Your task to perform on an android device: Open calendar and show me the fourth week of next month Image 0: 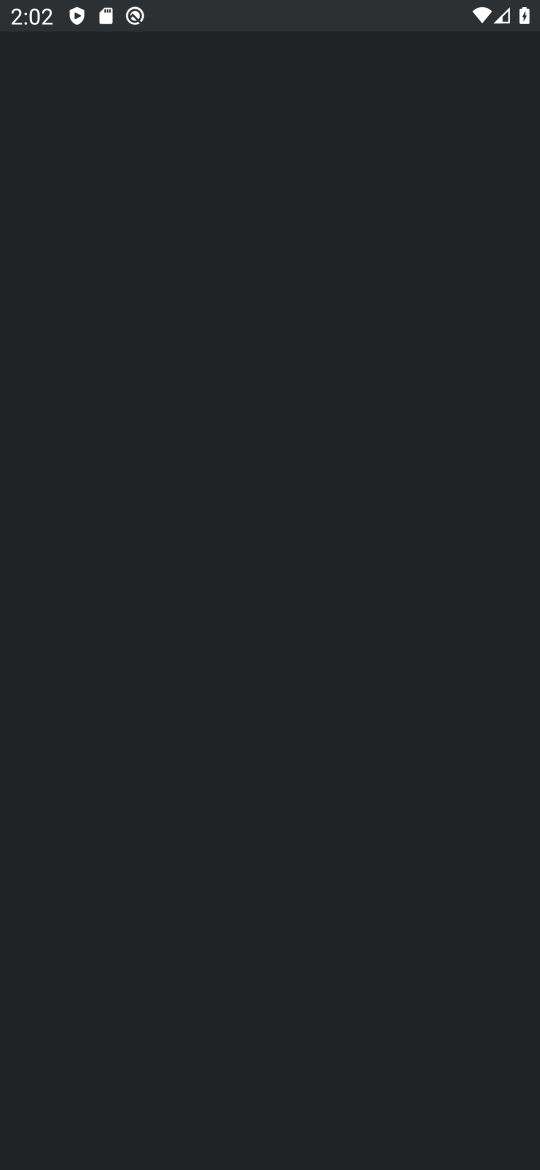
Step 0: drag from (477, 969) to (387, 182)
Your task to perform on an android device: Open calendar and show me the fourth week of next month Image 1: 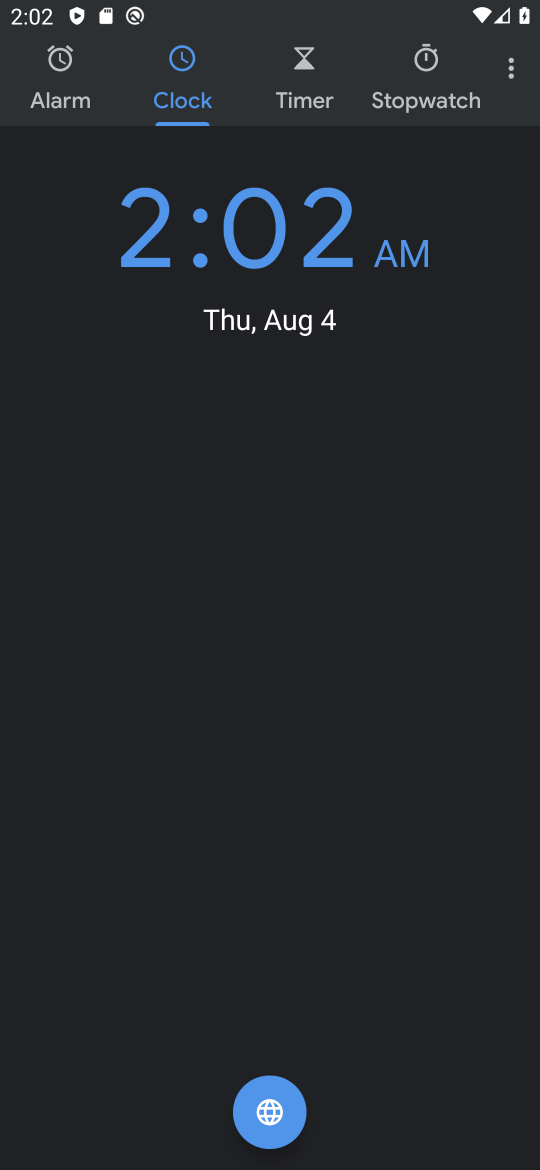
Step 1: press home button
Your task to perform on an android device: Open calendar and show me the fourth week of next month Image 2: 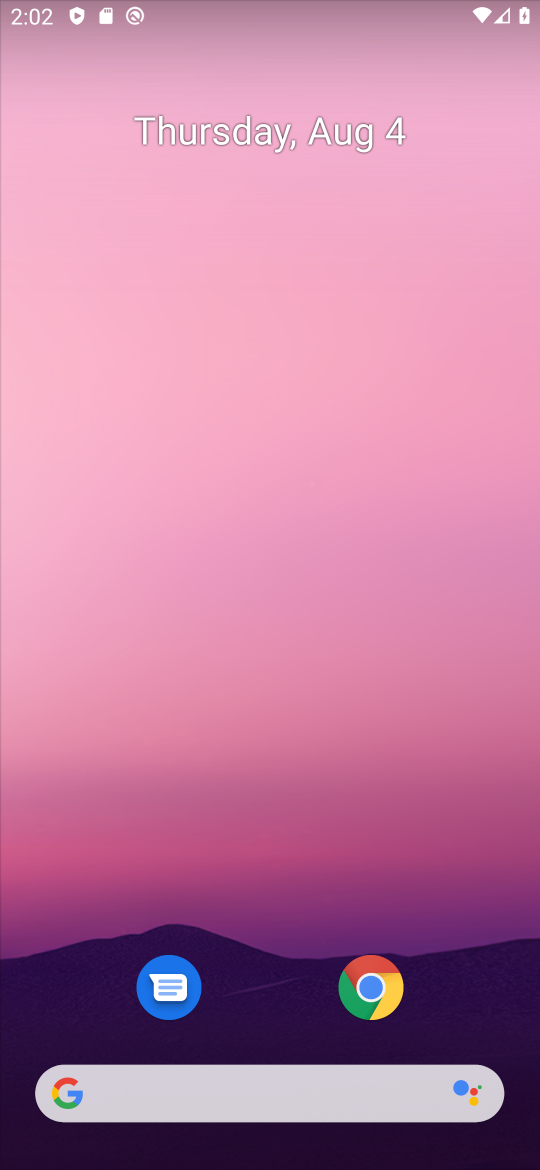
Step 2: drag from (522, 1004) to (242, 137)
Your task to perform on an android device: Open calendar and show me the fourth week of next month Image 3: 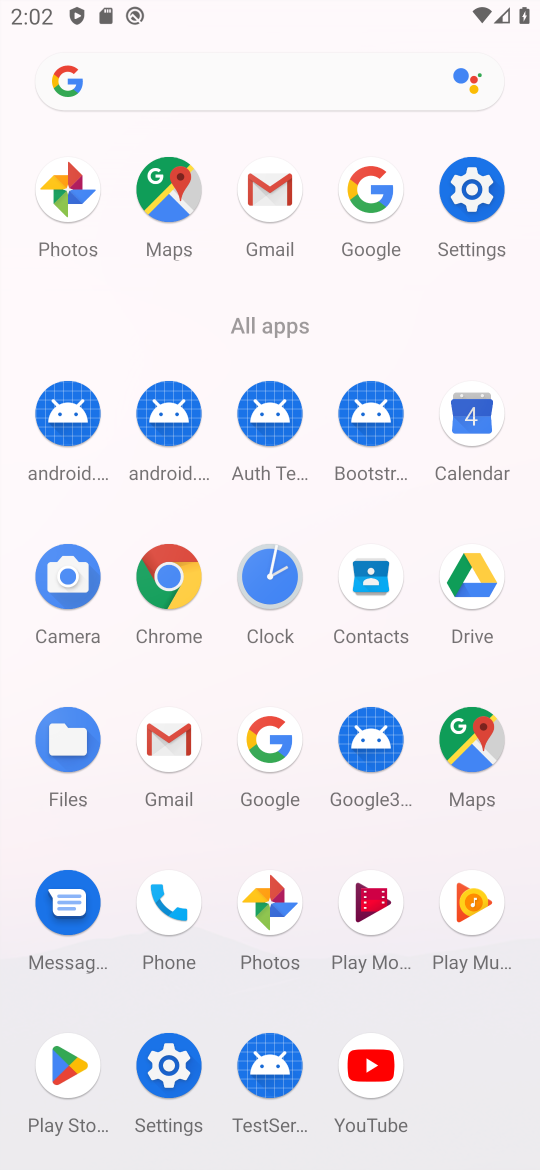
Step 3: click (462, 414)
Your task to perform on an android device: Open calendar and show me the fourth week of next month Image 4: 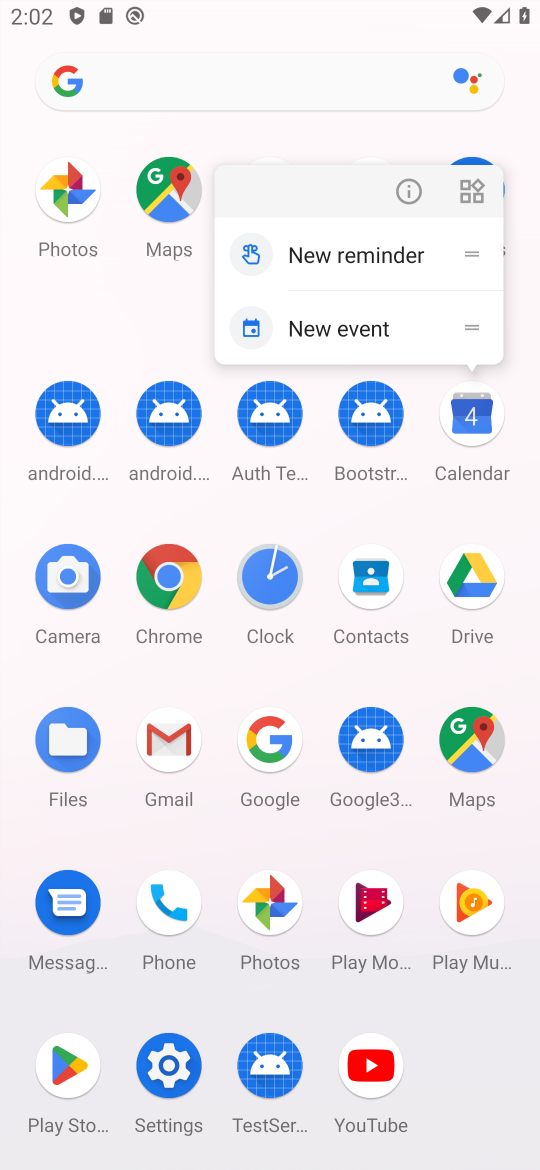
Step 4: click (464, 414)
Your task to perform on an android device: Open calendar and show me the fourth week of next month Image 5: 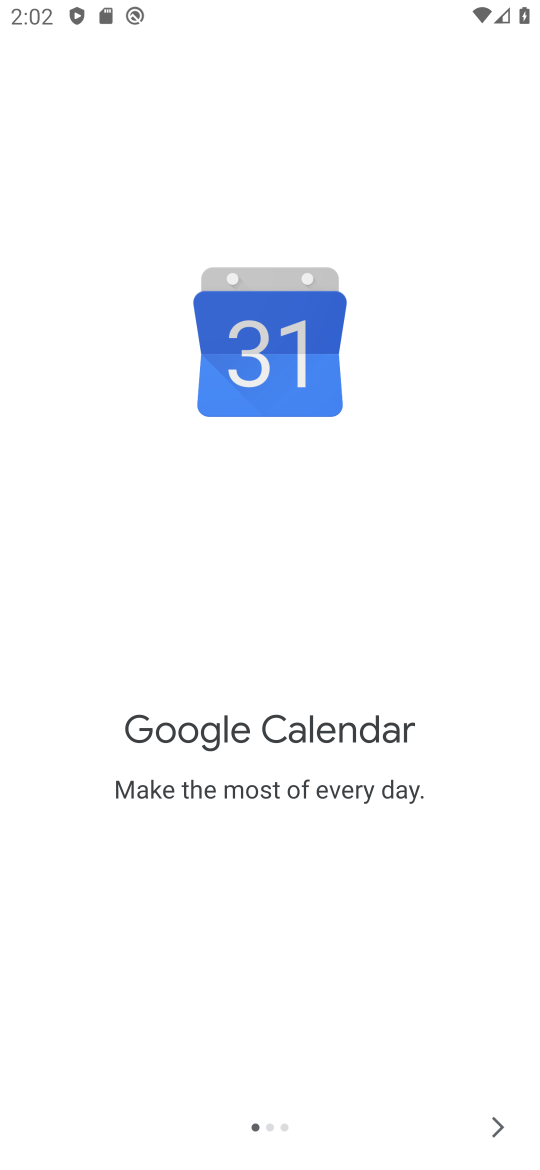
Step 5: click (496, 1132)
Your task to perform on an android device: Open calendar and show me the fourth week of next month Image 6: 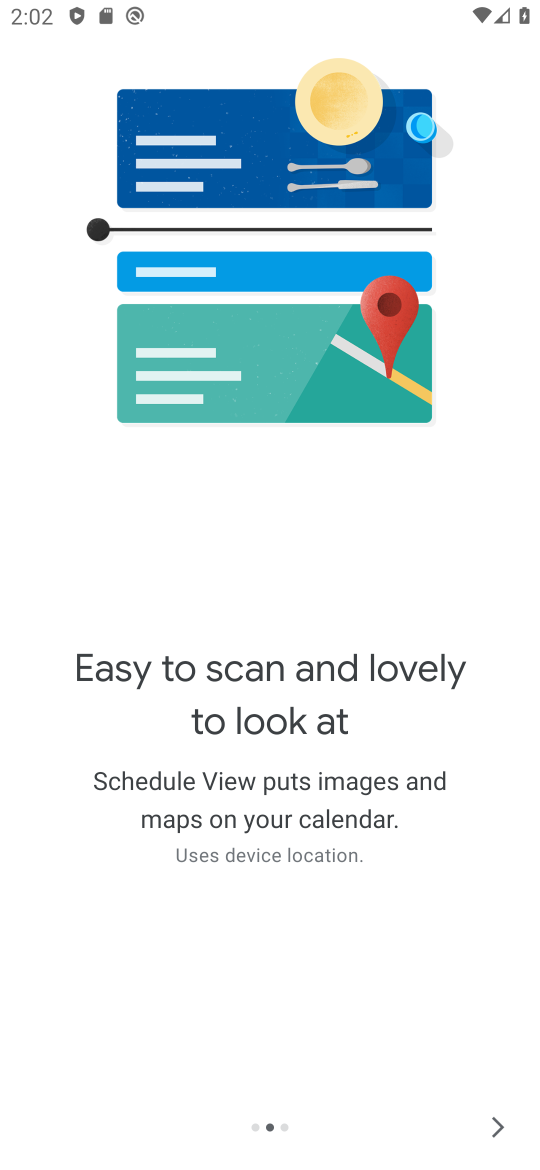
Step 6: click (495, 1130)
Your task to perform on an android device: Open calendar and show me the fourth week of next month Image 7: 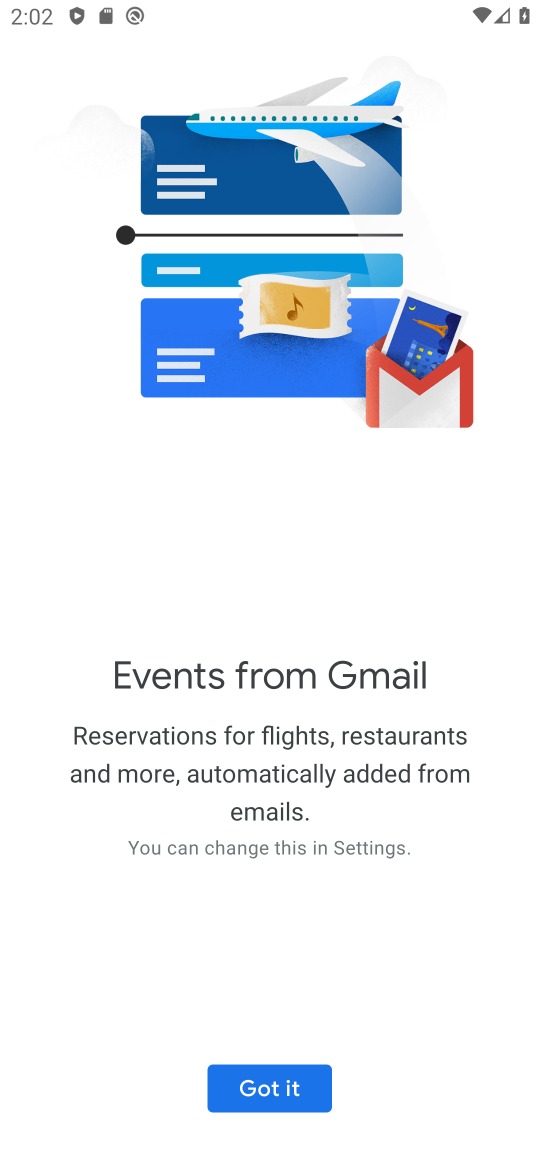
Step 7: click (267, 1084)
Your task to perform on an android device: Open calendar and show me the fourth week of next month Image 8: 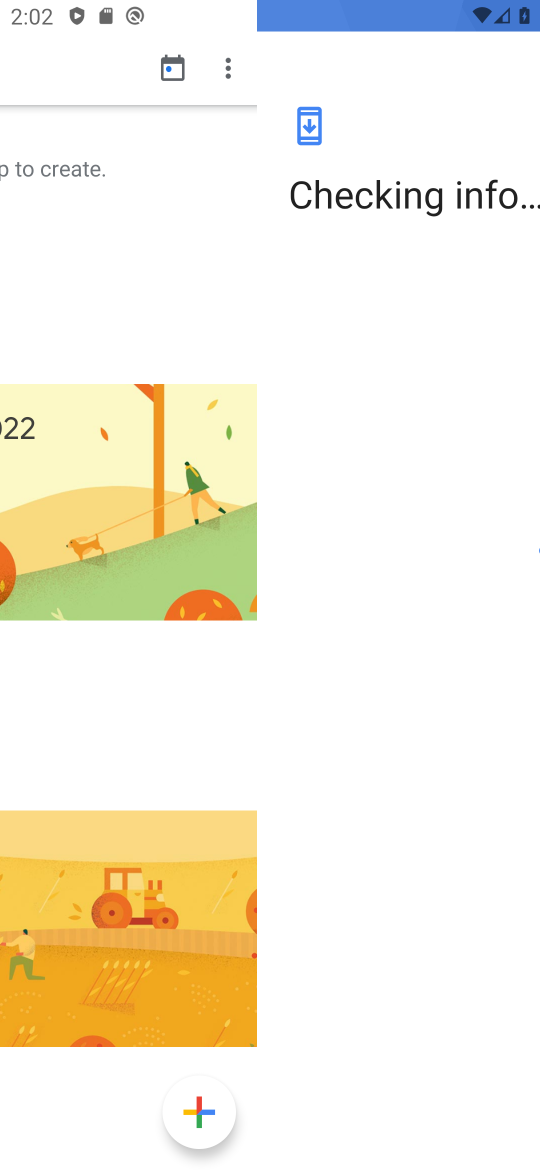
Step 8: click (126, 71)
Your task to perform on an android device: Open calendar and show me the fourth week of next month Image 9: 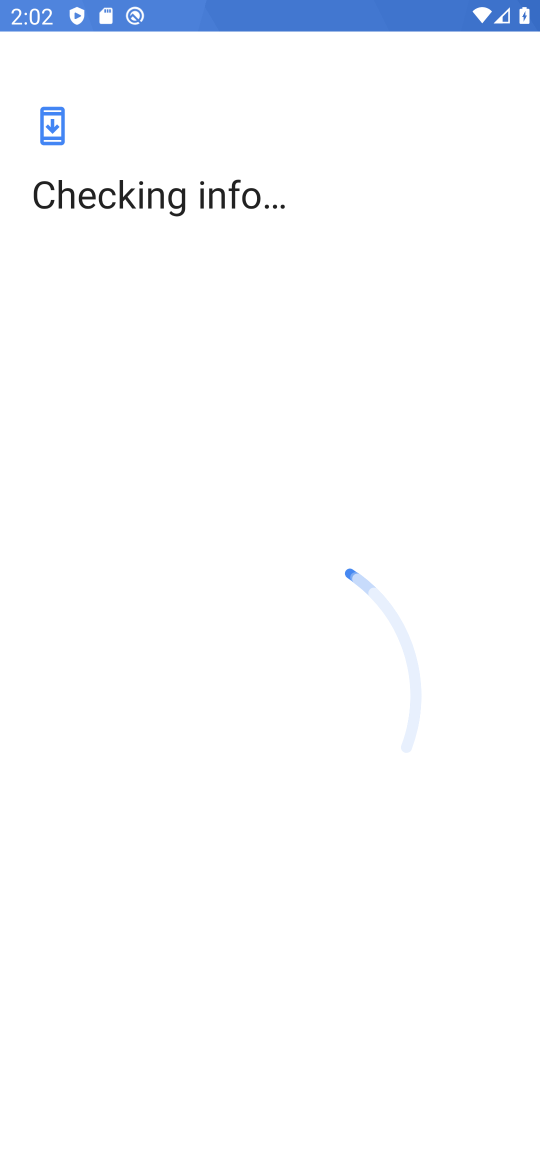
Step 9: press back button
Your task to perform on an android device: Open calendar and show me the fourth week of next month Image 10: 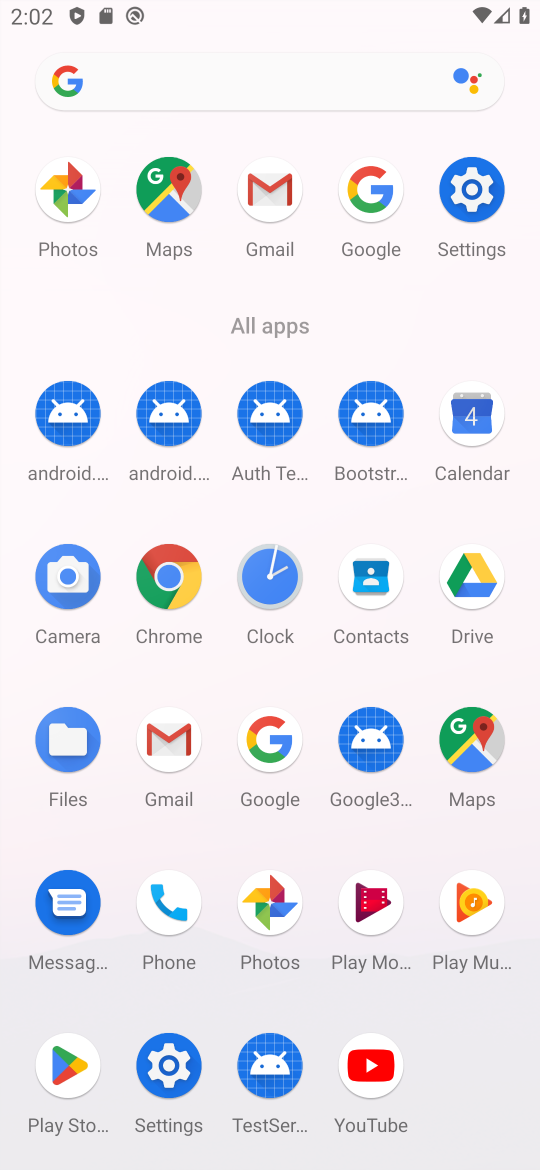
Step 10: click (482, 430)
Your task to perform on an android device: Open calendar and show me the fourth week of next month Image 11: 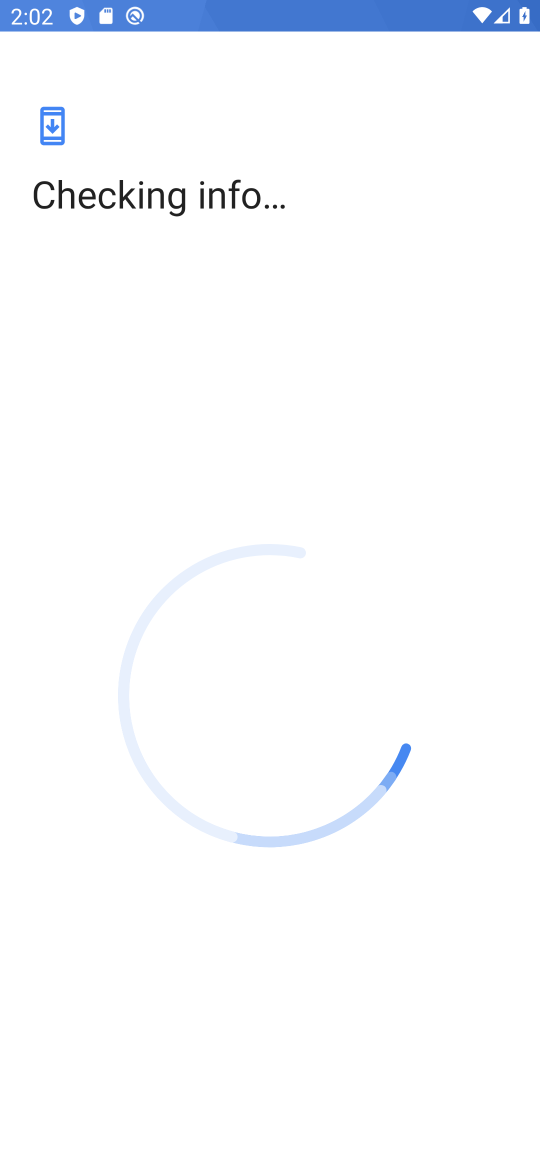
Step 11: click (136, 75)
Your task to perform on an android device: Open calendar and show me the fourth week of next month Image 12: 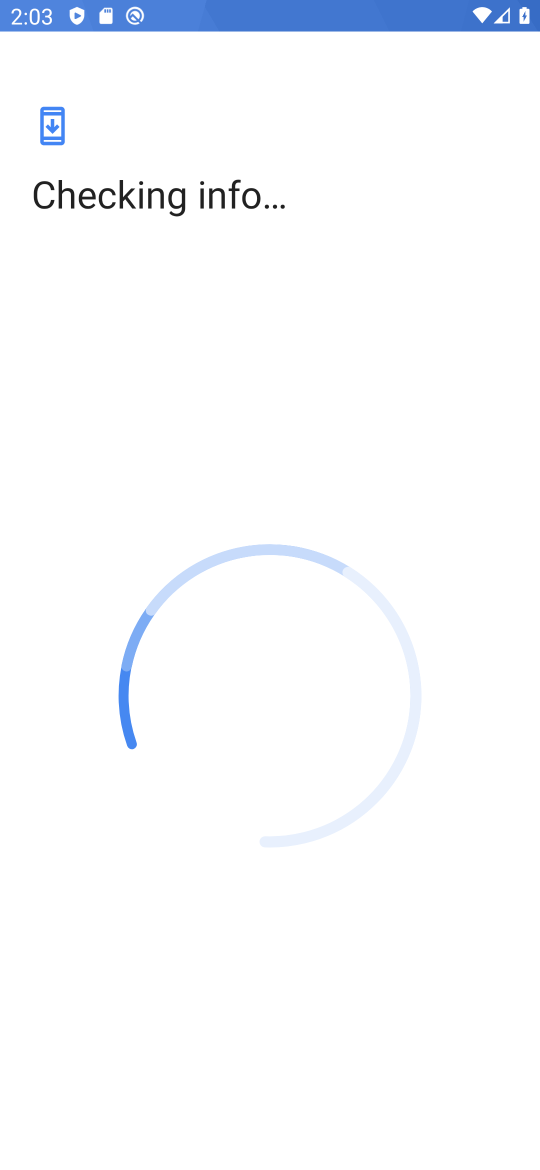
Step 12: task complete